Your task to perform on an android device: open a bookmark in the chrome app Image 0: 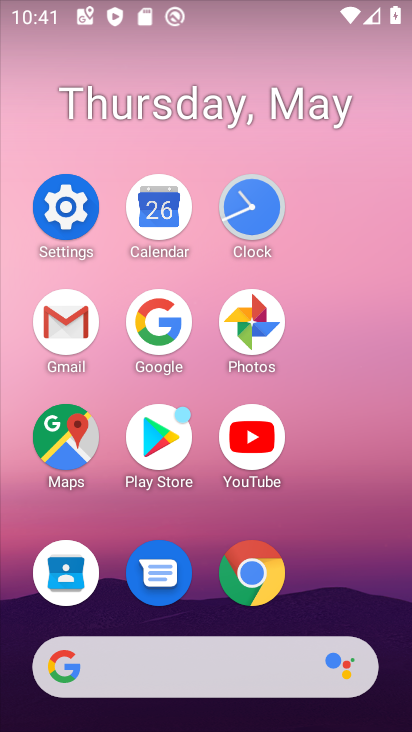
Step 0: click (239, 570)
Your task to perform on an android device: open a bookmark in the chrome app Image 1: 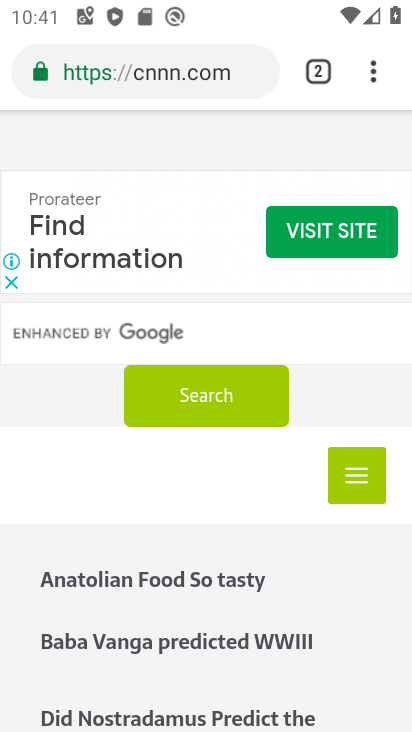
Step 1: click (379, 60)
Your task to perform on an android device: open a bookmark in the chrome app Image 2: 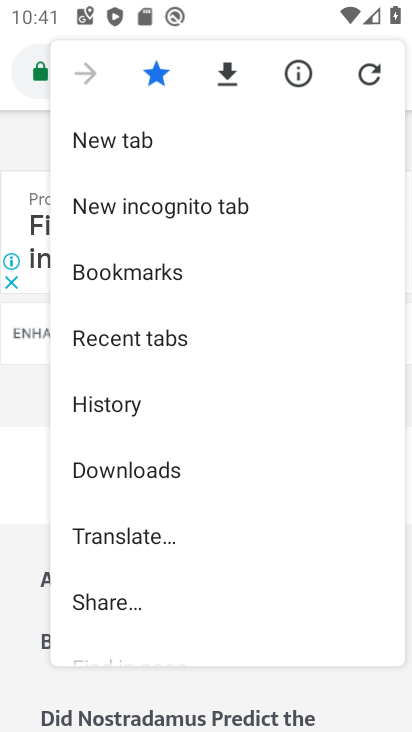
Step 2: click (180, 269)
Your task to perform on an android device: open a bookmark in the chrome app Image 3: 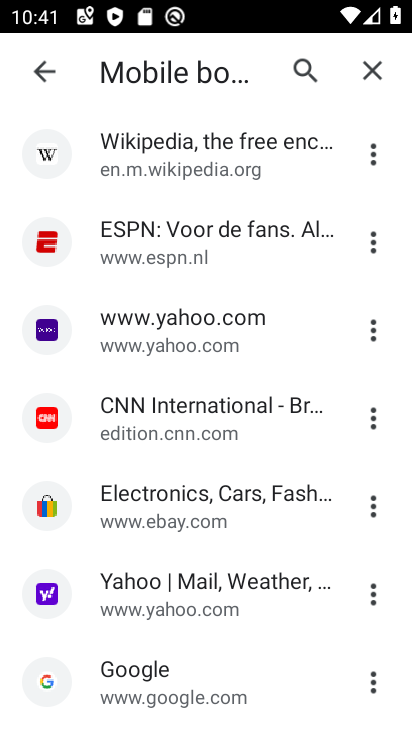
Step 3: click (190, 169)
Your task to perform on an android device: open a bookmark in the chrome app Image 4: 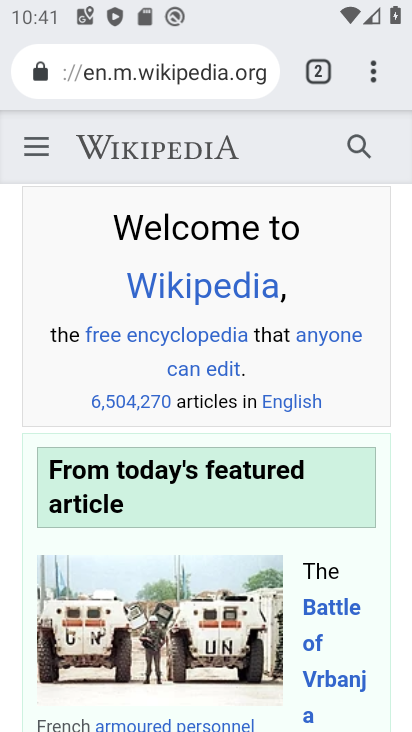
Step 4: task complete